Your task to perform on an android device: see tabs open on other devices in the chrome app Image 0: 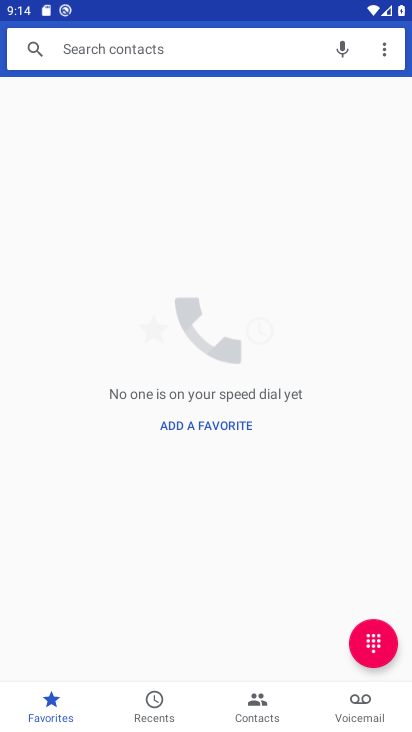
Step 0: press home button
Your task to perform on an android device: see tabs open on other devices in the chrome app Image 1: 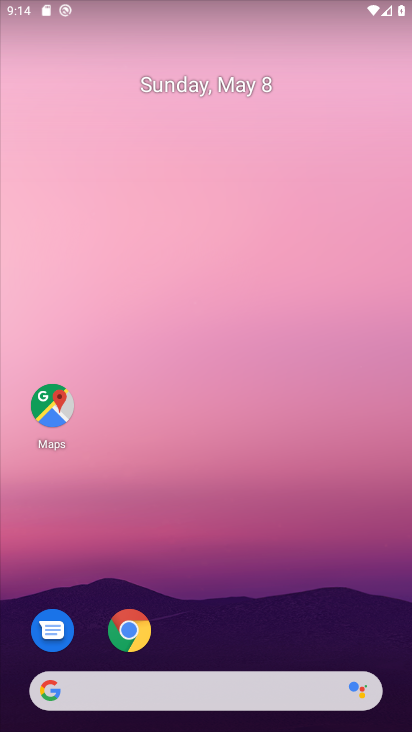
Step 1: click (133, 635)
Your task to perform on an android device: see tabs open on other devices in the chrome app Image 2: 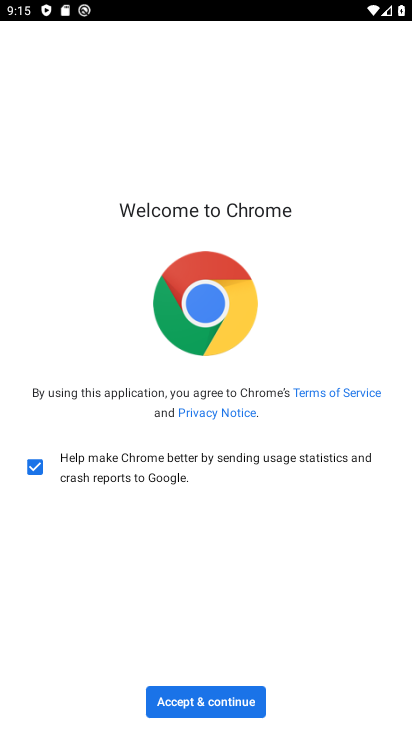
Step 2: click (222, 699)
Your task to perform on an android device: see tabs open on other devices in the chrome app Image 3: 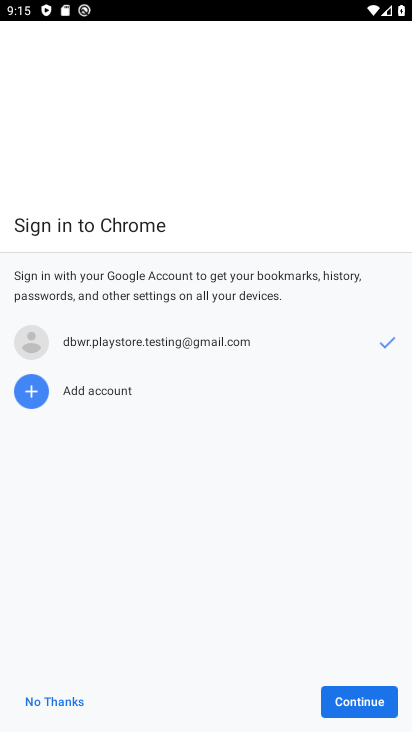
Step 3: click (374, 707)
Your task to perform on an android device: see tabs open on other devices in the chrome app Image 4: 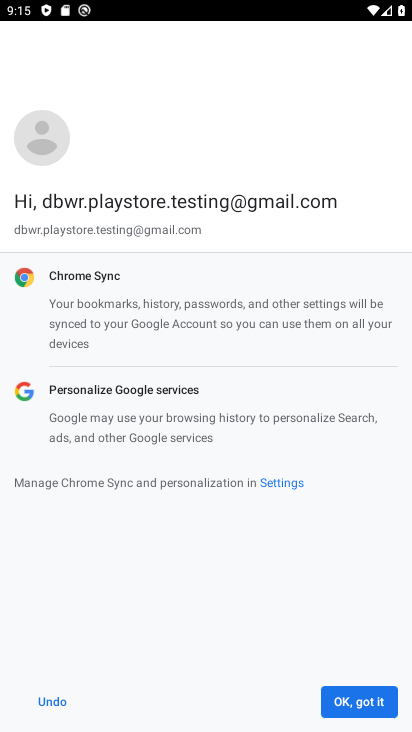
Step 4: click (374, 707)
Your task to perform on an android device: see tabs open on other devices in the chrome app Image 5: 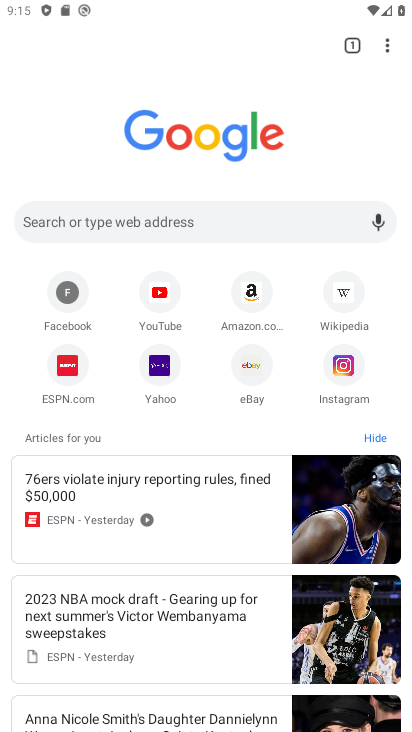
Step 5: click (358, 46)
Your task to perform on an android device: see tabs open on other devices in the chrome app Image 6: 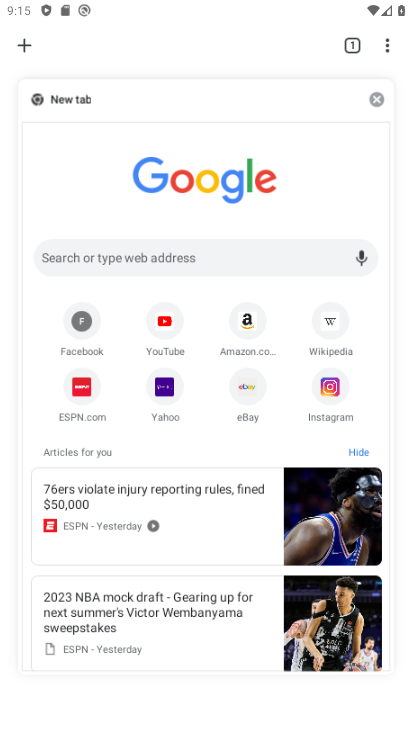
Step 6: task complete